Your task to perform on an android device: turn off location history Image 0: 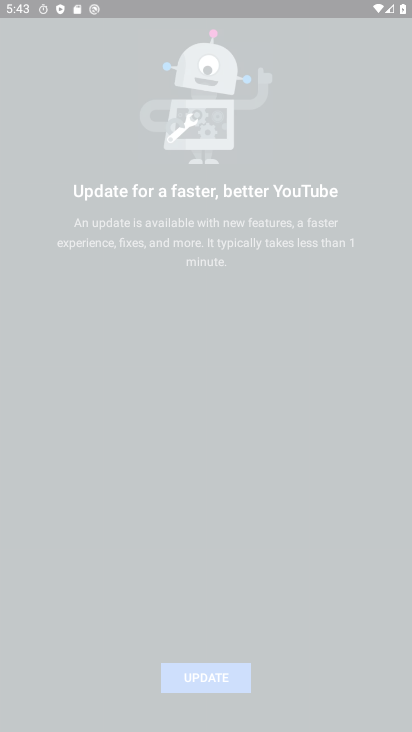
Step 0: drag from (237, 565) to (183, 262)
Your task to perform on an android device: turn off location history Image 1: 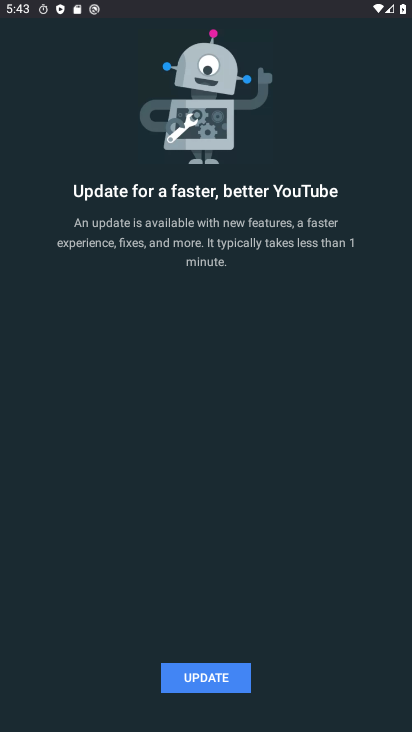
Step 1: press home button
Your task to perform on an android device: turn off location history Image 2: 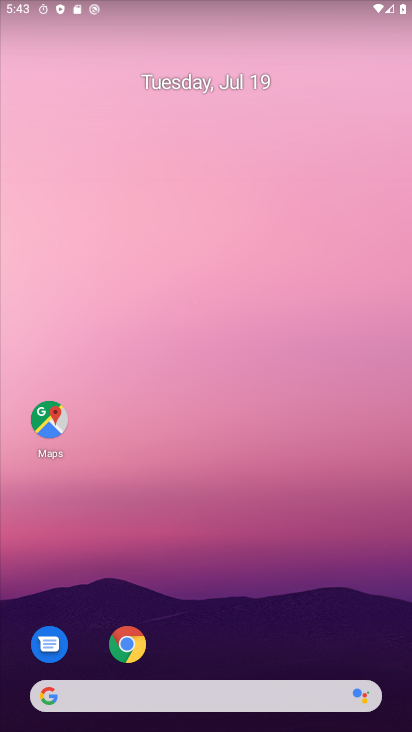
Step 2: drag from (270, 591) to (236, 239)
Your task to perform on an android device: turn off location history Image 3: 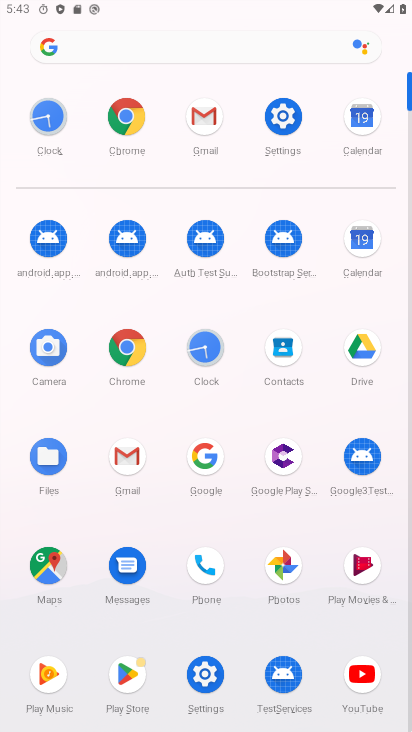
Step 3: click (213, 674)
Your task to perform on an android device: turn off location history Image 4: 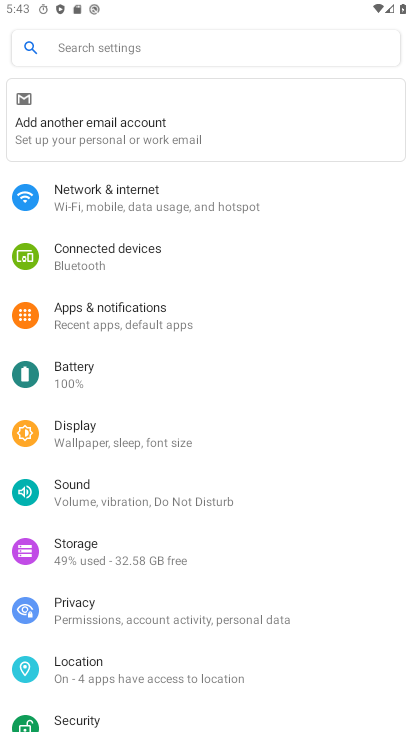
Step 4: click (96, 661)
Your task to perform on an android device: turn off location history Image 5: 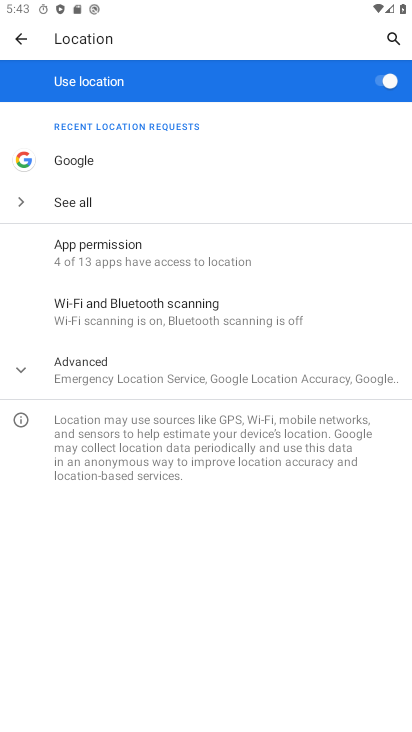
Step 5: task complete